Your task to perform on an android device: Is it going to rain this weekend? Image 0: 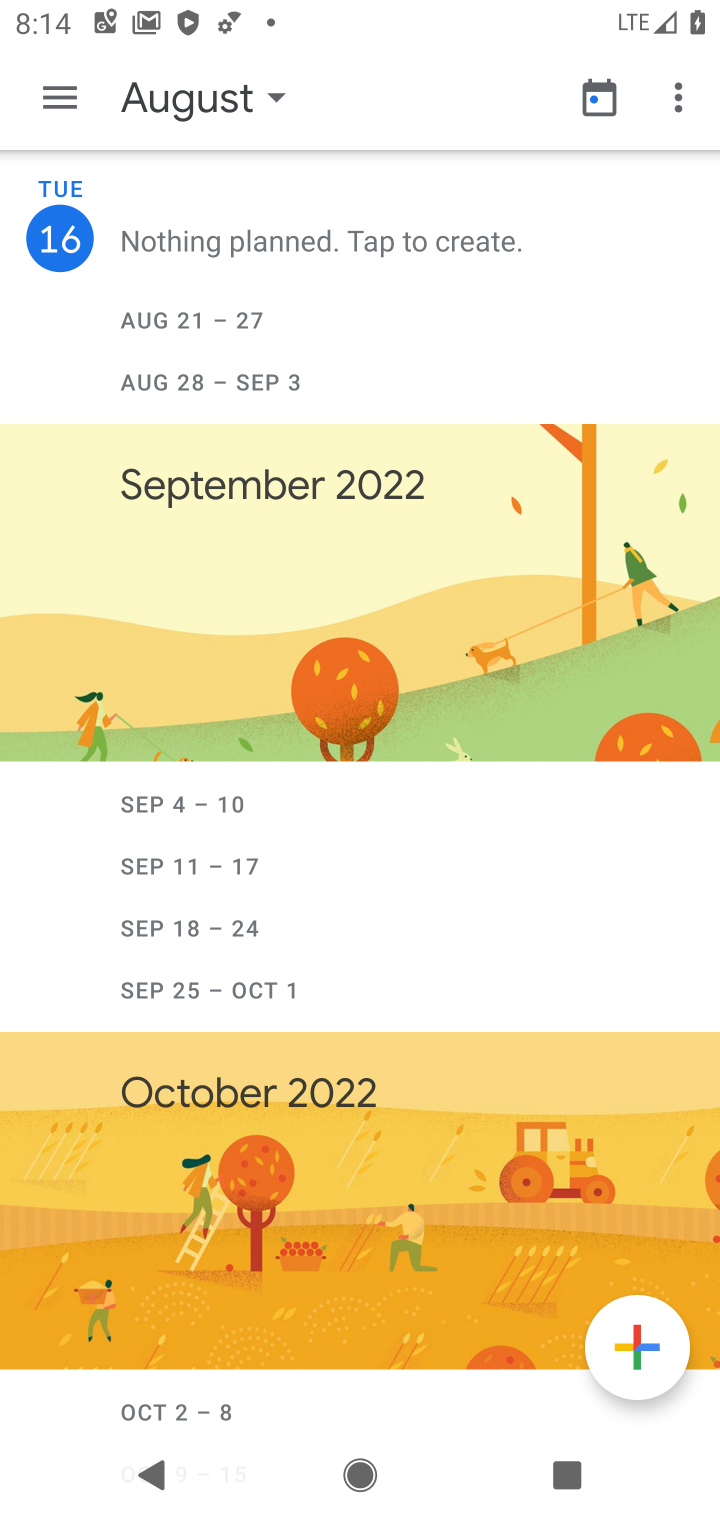
Step 0: press home button
Your task to perform on an android device: Is it going to rain this weekend? Image 1: 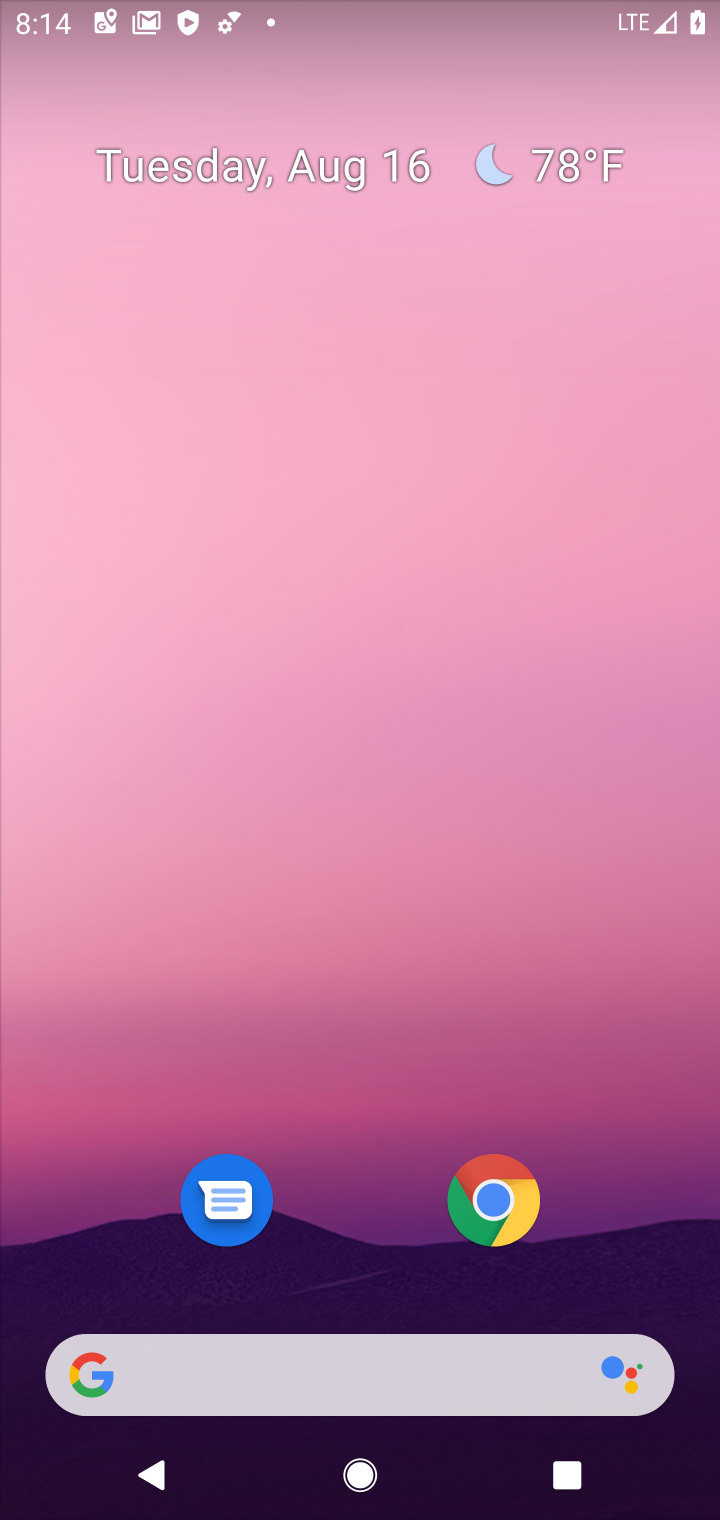
Step 1: click (562, 168)
Your task to perform on an android device: Is it going to rain this weekend? Image 2: 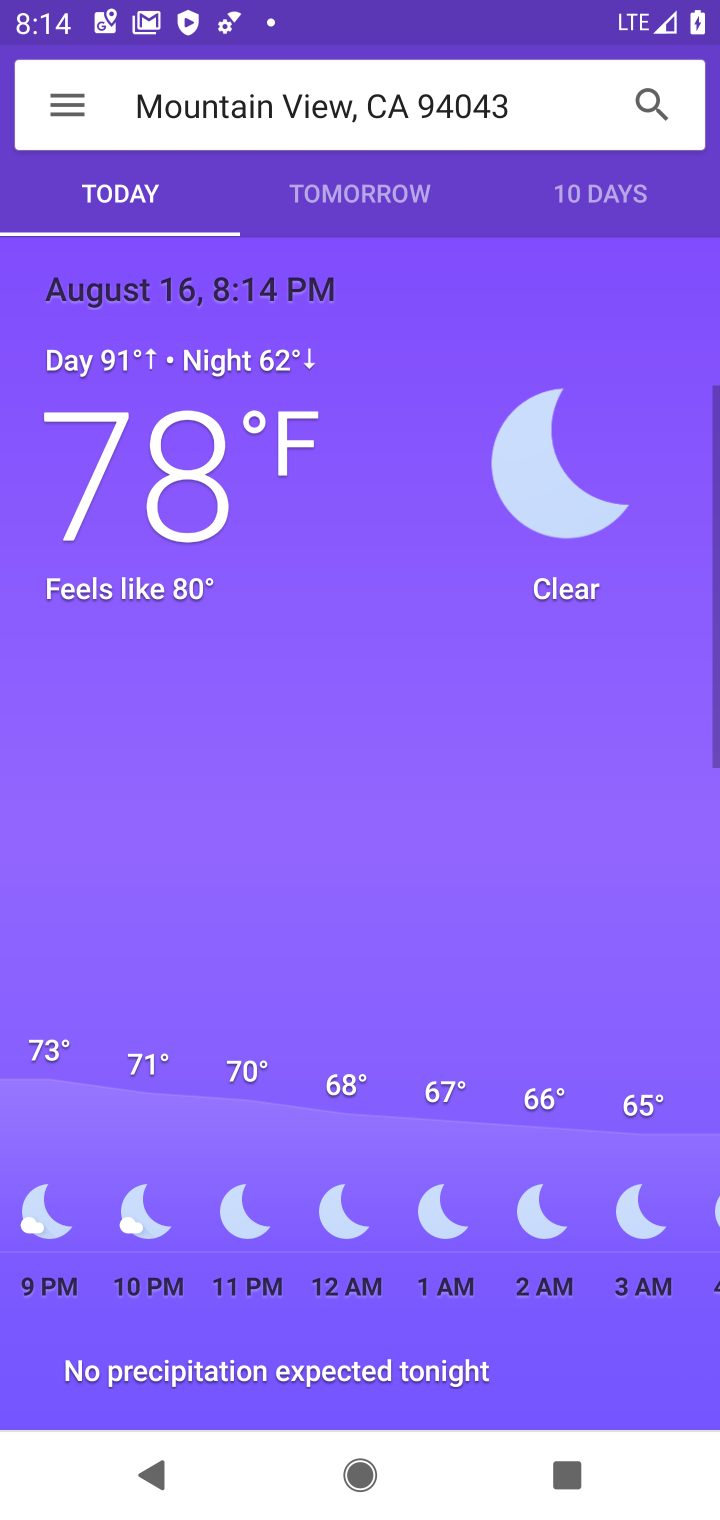
Step 2: click (599, 205)
Your task to perform on an android device: Is it going to rain this weekend? Image 3: 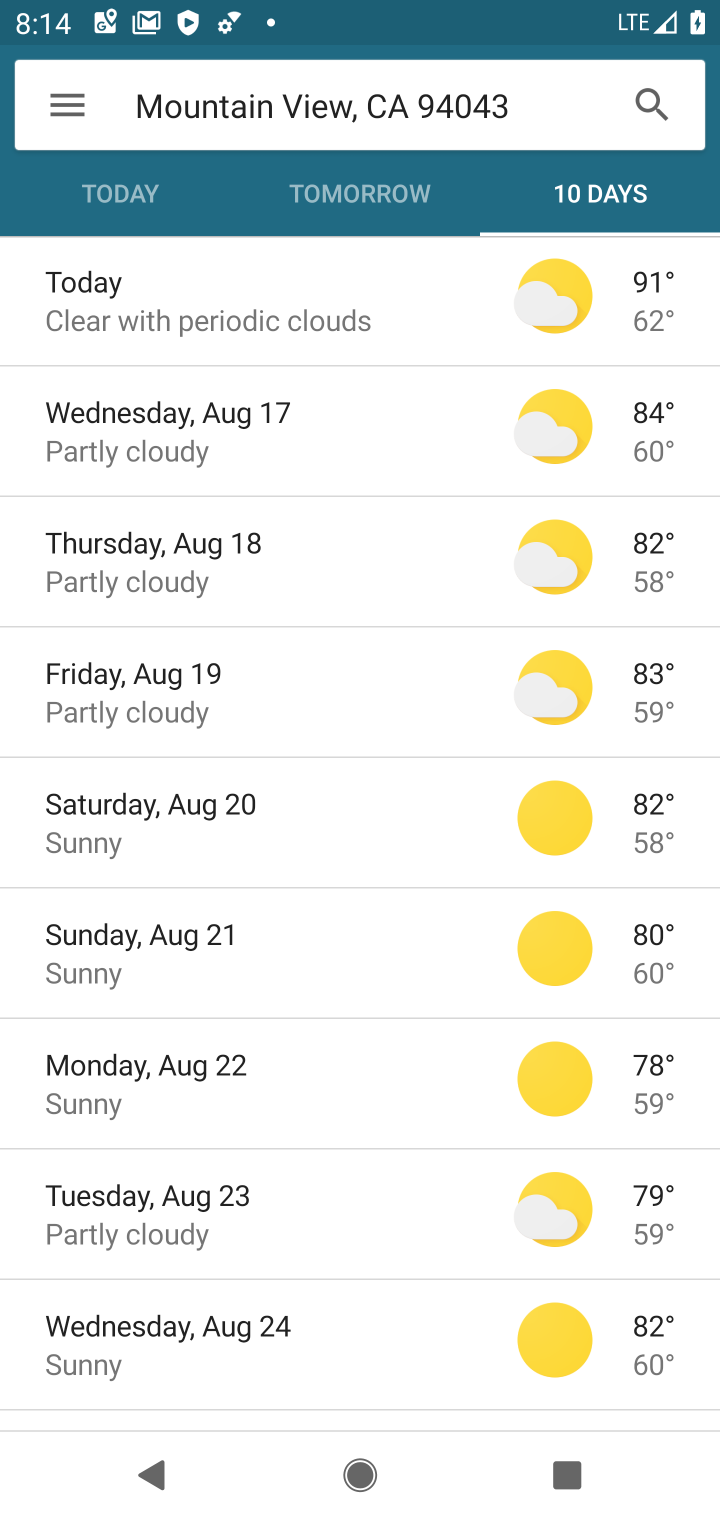
Step 3: task complete